Your task to perform on an android device: check data usage Image 0: 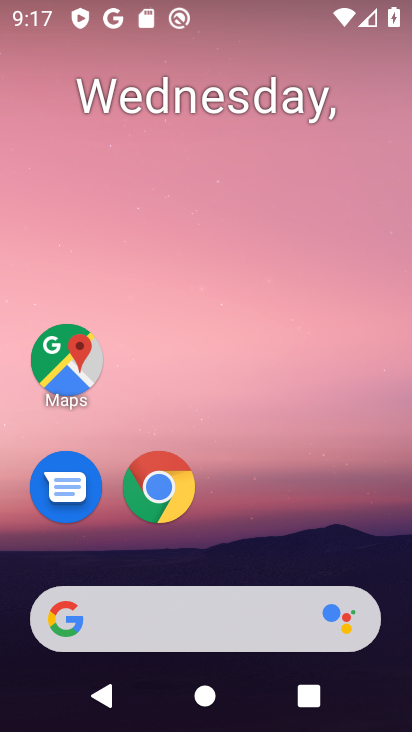
Step 0: drag from (223, 571) to (167, 17)
Your task to perform on an android device: check data usage Image 1: 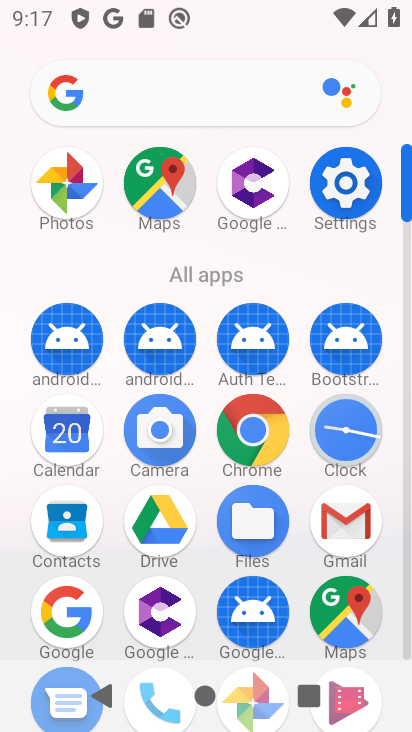
Step 1: click (342, 188)
Your task to perform on an android device: check data usage Image 2: 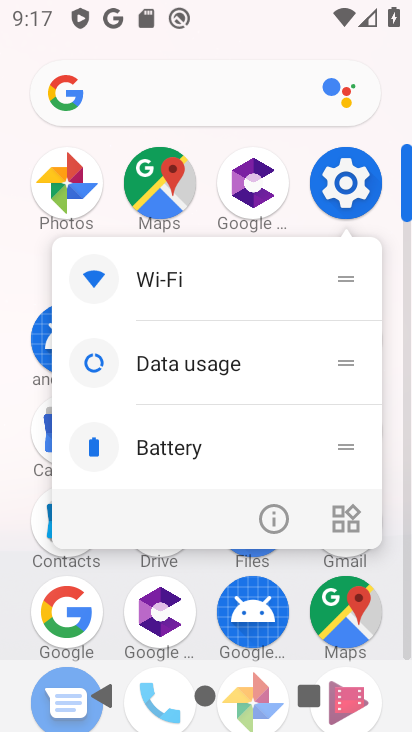
Step 2: click (335, 186)
Your task to perform on an android device: check data usage Image 3: 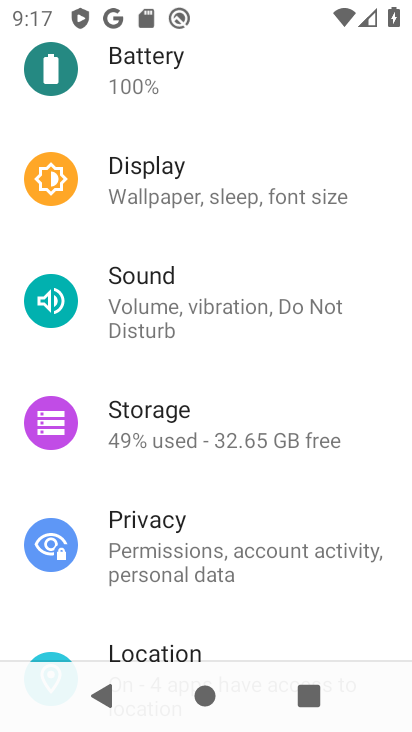
Step 3: drag from (196, 631) to (185, 328)
Your task to perform on an android device: check data usage Image 4: 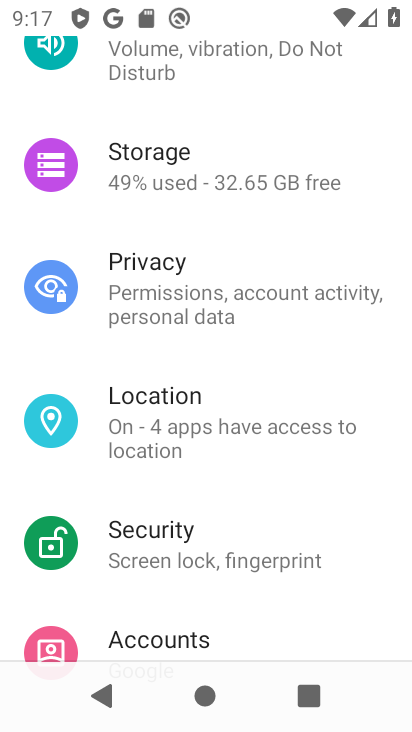
Step 4: drag from (181, 102) to (189, 630)
Your task to perform on an android device: check data usage Image 5: 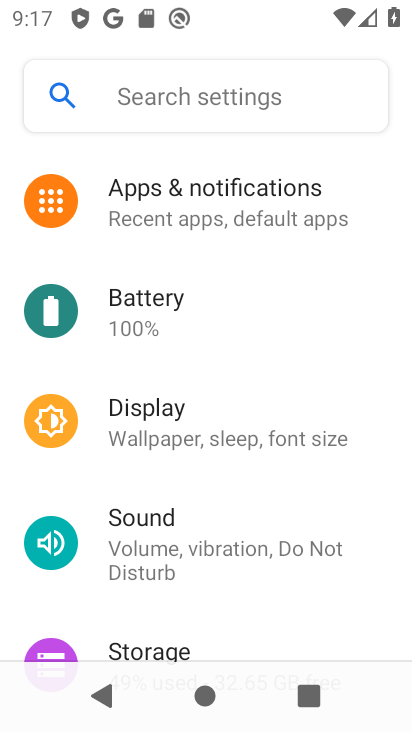
Step 5: drag from (217, 174) to (224, 602)
Your task to perform on an android device: check data usage Image 6: 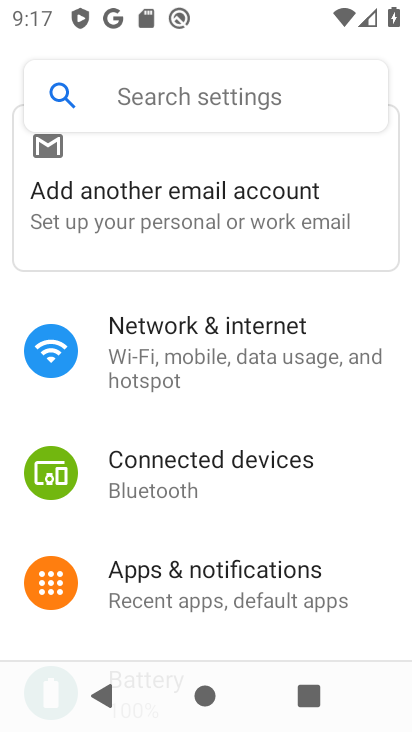
Step 6: click (162, 347)
Your task to perform on an android device: check data usage Image 7: 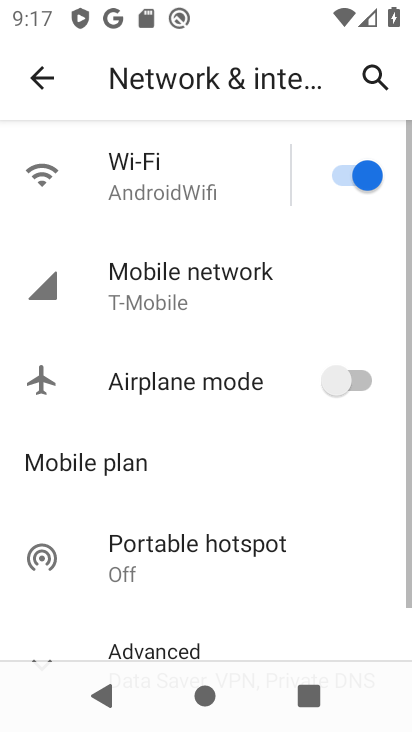
Step 7: click (150, 281)
Your task to perform on an android device: check data usage Image 8: 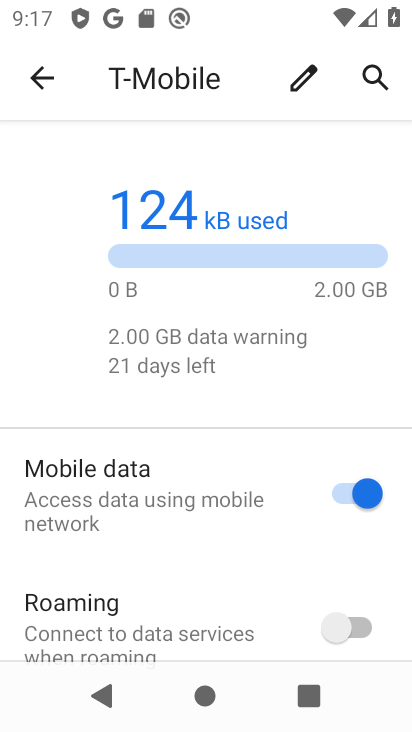
Step 8: task complete